Your task to perform on an android device: allow cookies in the chrome app Image 0: 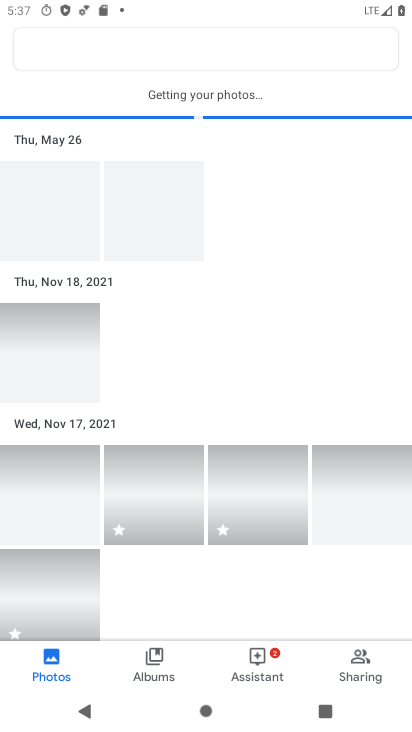
Step 0: press home button
Your task to perform on an android device: allow cookies in the chrome app Image 1: 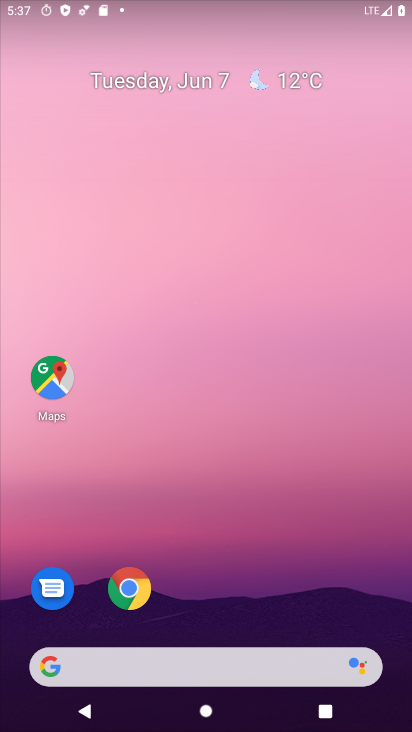
Step 1: click (102, 589)
Your task to perform on an android device: allow cookies in the chrome app Image 2: 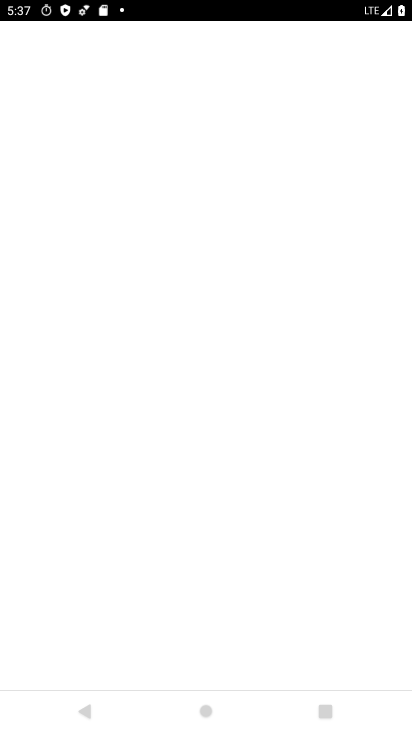
Step 2: click (129, 580)
Your task to perform on an android device: allow cookies in the chrome app Image 3: 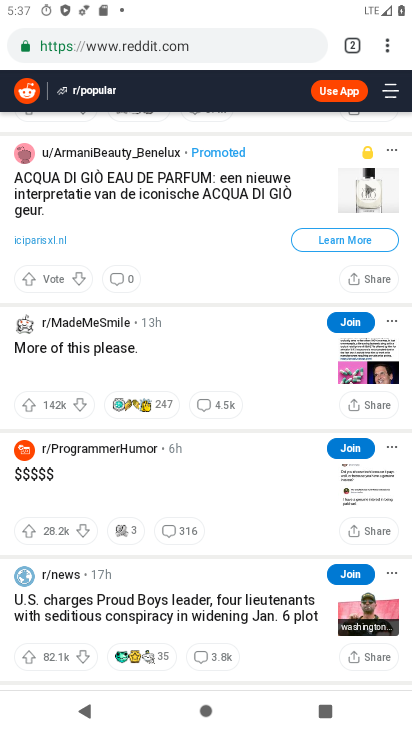
Step 3: click (388, 52)
Your task to perform on an android device: allow cookies in the chrome app Image 4: 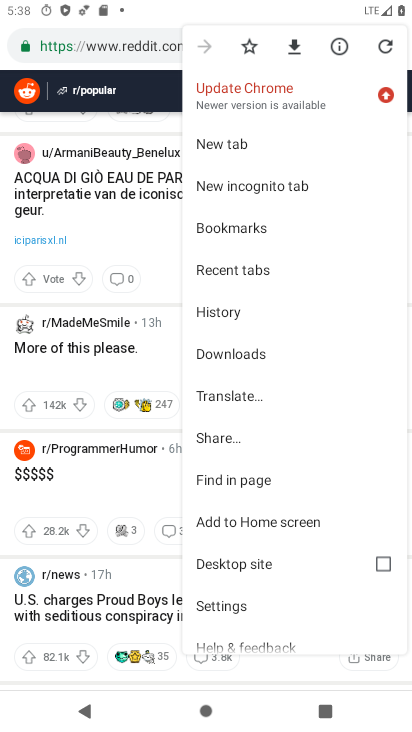
Step 4: click (233, 600)
Your task to perform on an android device: allow cookies in the chrome app Image 5: 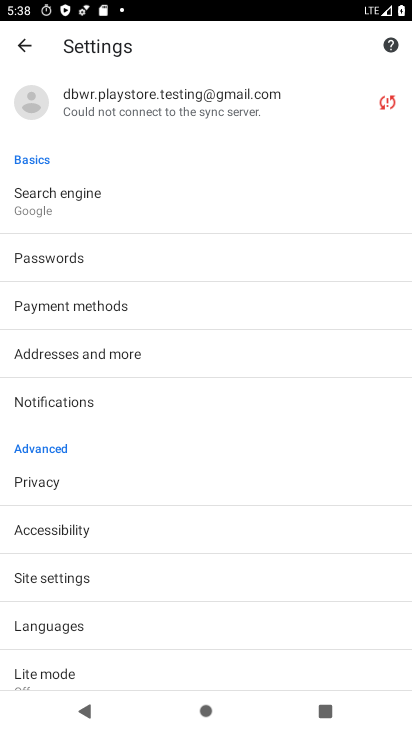
Step 5: click (71, 586)
Your task to perform on an android device: allow cookies in the chrome app Image 6: 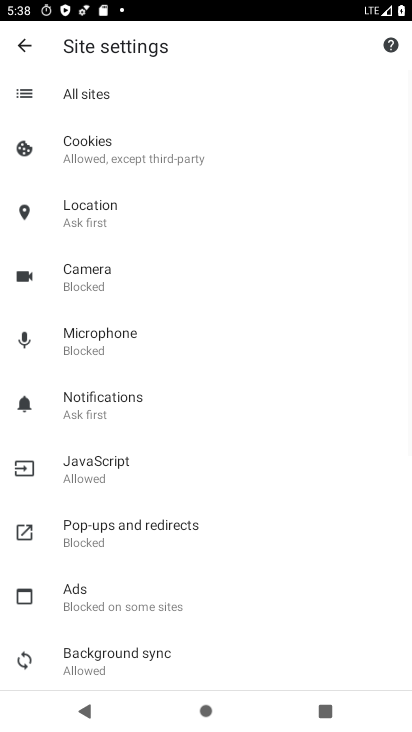
Step 6: click (113, 151)
Your task to perform on an android device: allow cookies in the chrome app Image 7: 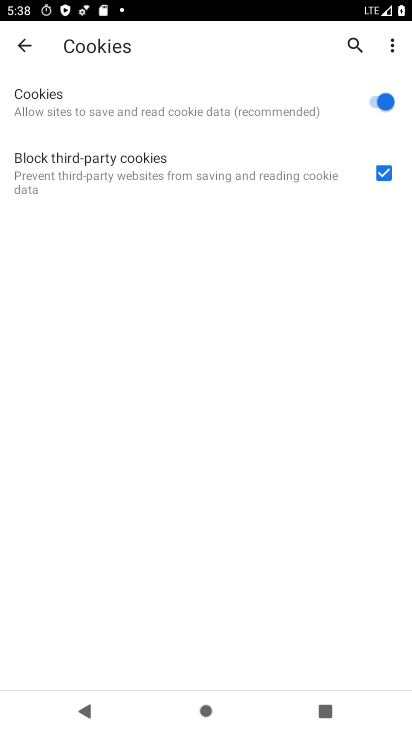
Step 7: task complete